Your task to perform on an android device: turn on wifi Image 0: 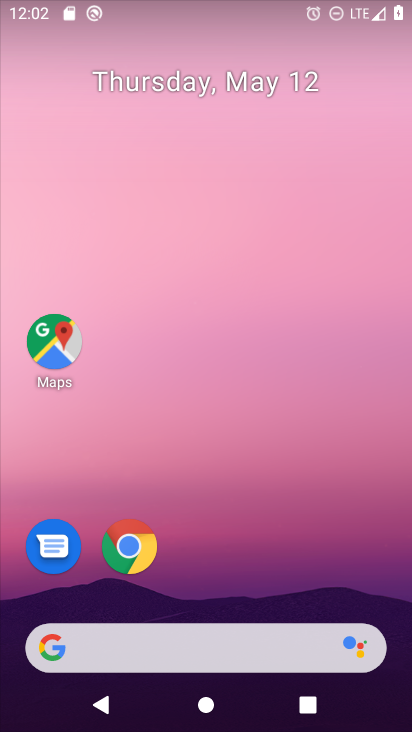
Step 0: drag from (396, 624) to (291, 128)
Your task to perform on an android device: turn on wifi Image 1: 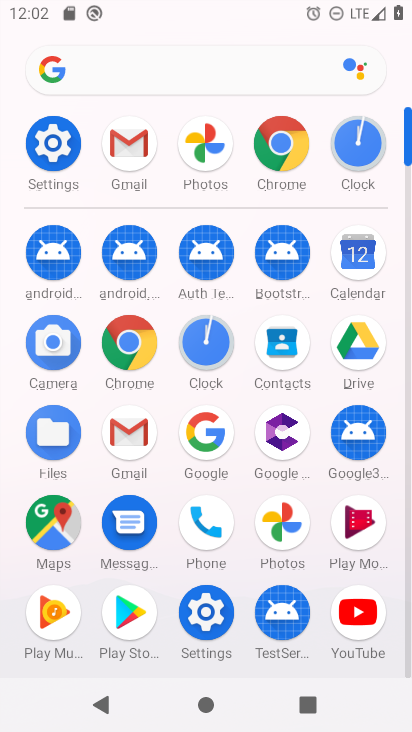
Step 1: click (55, 135)
Your task to perform on an android device: turn on wifi Image 2: 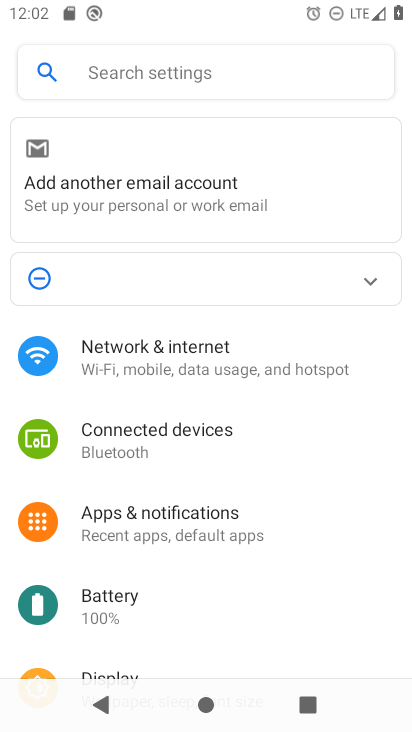
Step 2: click (253, 370)
Your task to perform on an android device: turn on wifi Image 3: 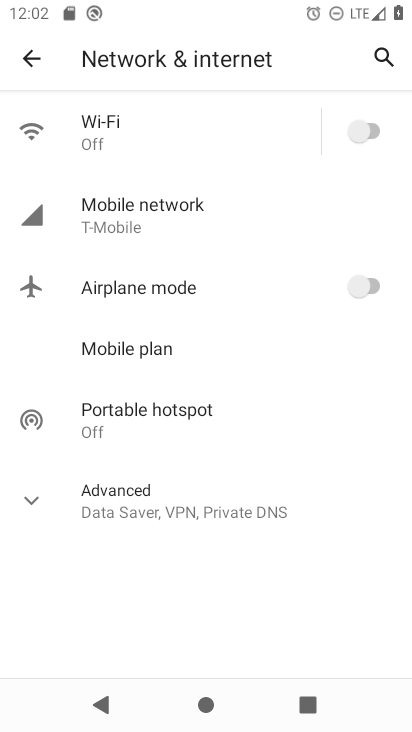
Step 3: click (341, 138)
Your task to perform on an android device: turn on wifi Image 4: 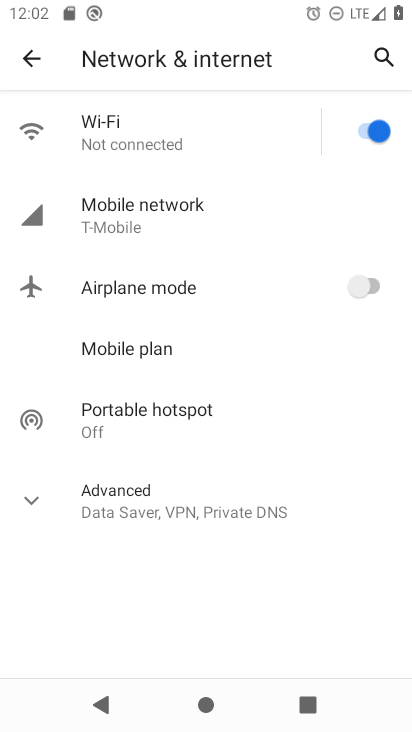
Step 4: task complete